Your task to perform on an android device: uninstall "Messenger Lite" Image 0: 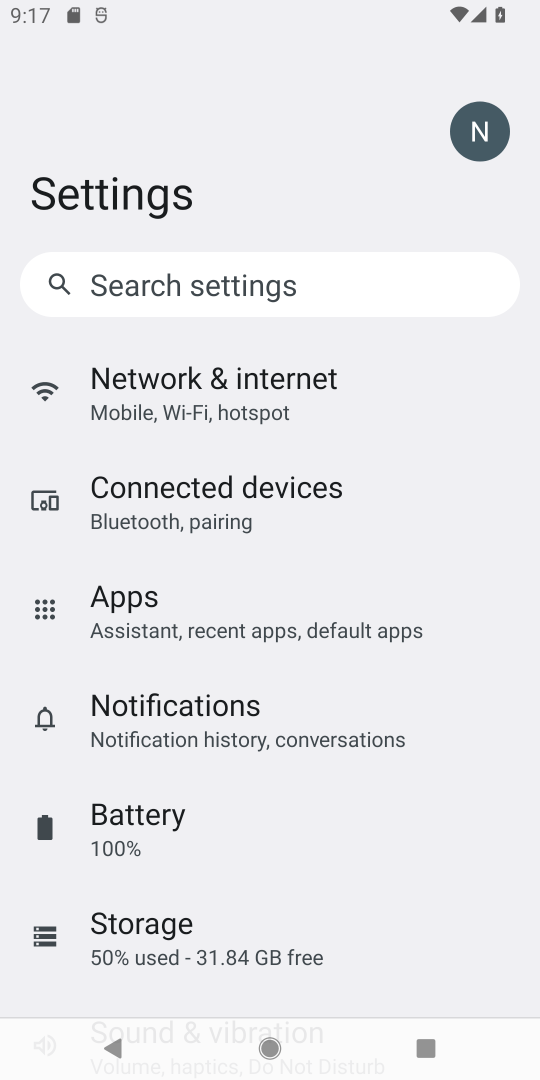
Step 0: press home button
Your task to perform on an android device: uninstall "Messenger Lite" Image 1: 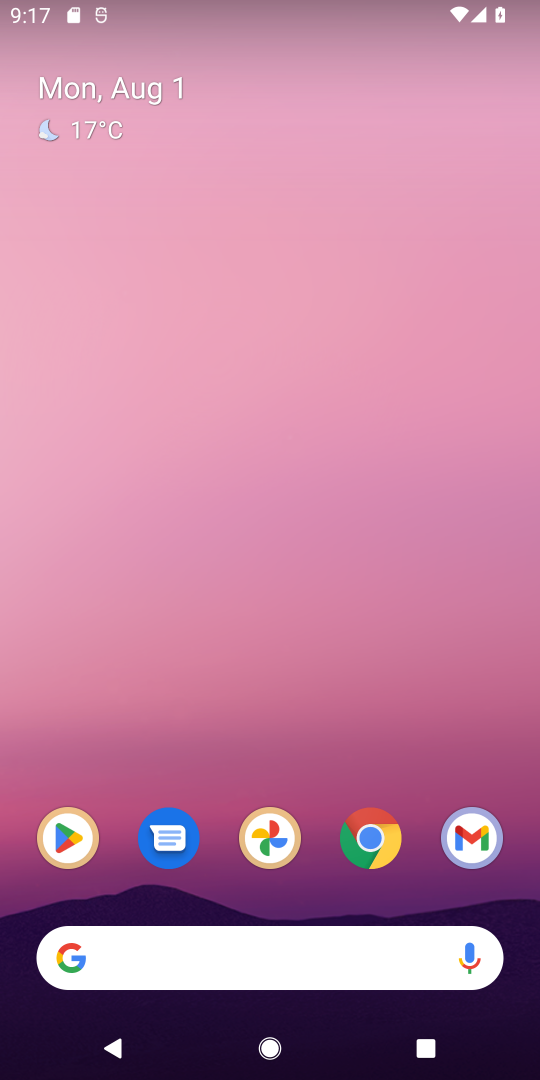
Step 1: click (77, 829)
Your task to perform on an android device: uninstall "Messenger Lite" Image 2: 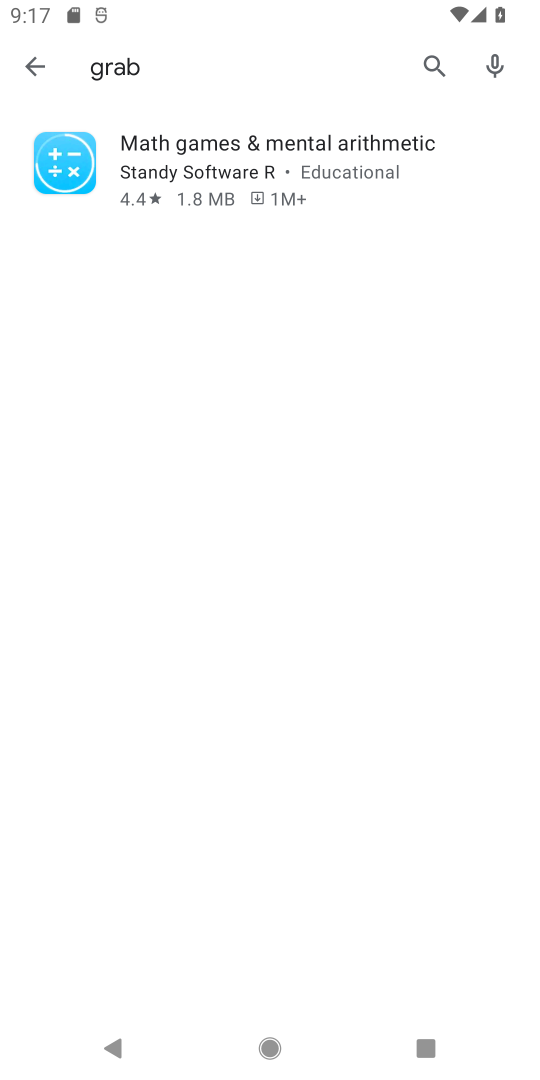
Step 2: click (429, 52)
Your task to perform on an android device: uninstall "Messenger Lite" Image 3: 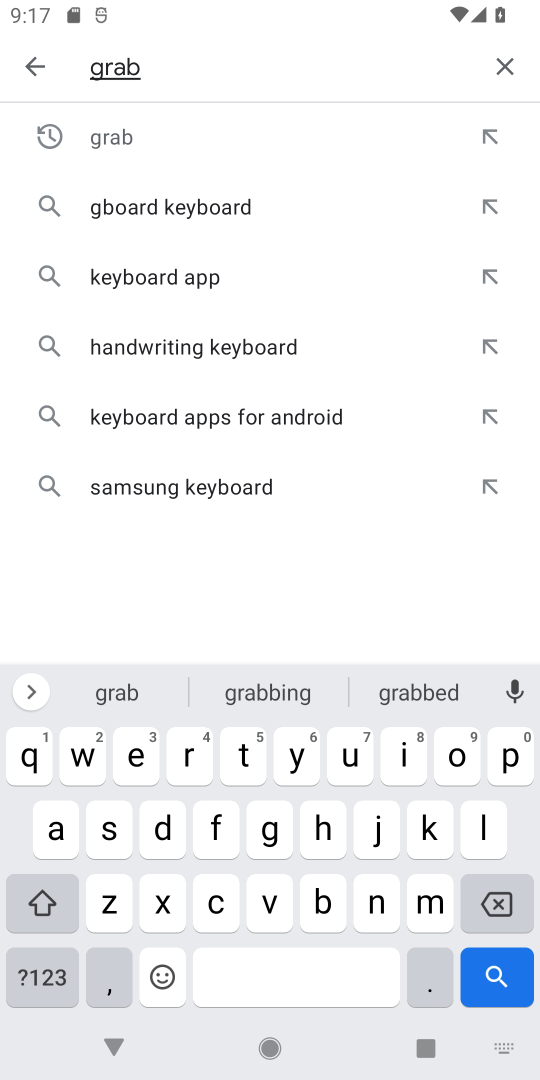
Step 3: click (504, 66)
Your task to perform on an android device: uninstall "Messenger Lite" Image 4: 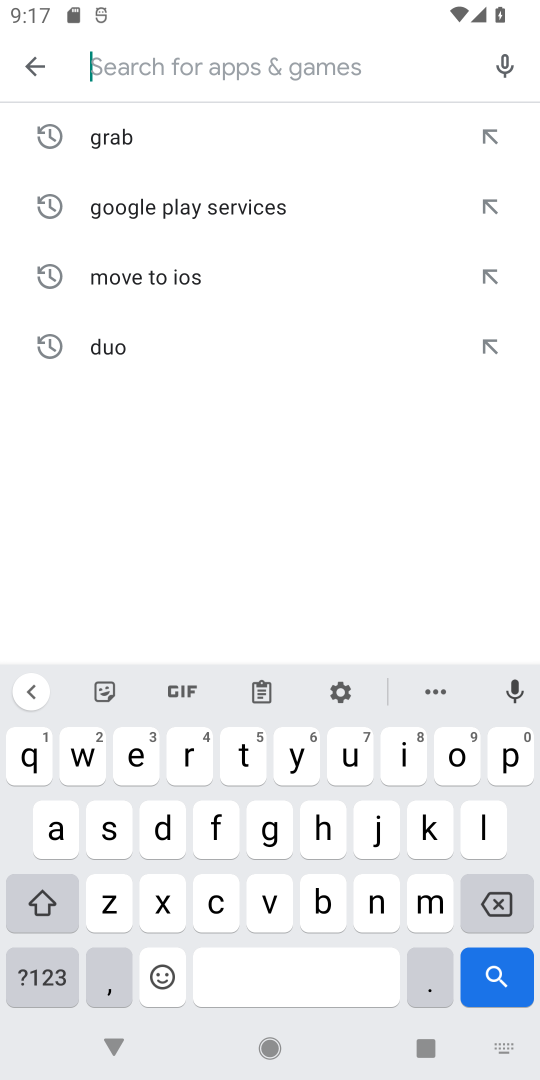
Step 4: type "messenger lite"
Your task to perform on an android device: uninstall "Messenger Lite" Image 5: 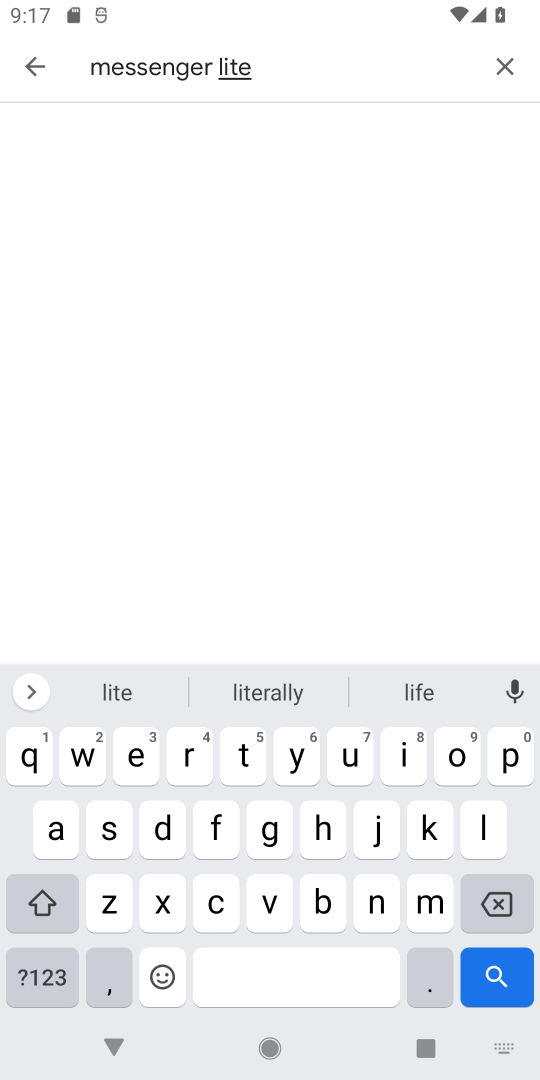
Step 5: click (497, 995)
Your task to perform on an android device: uninstall "Messenger Lite" Image 6: 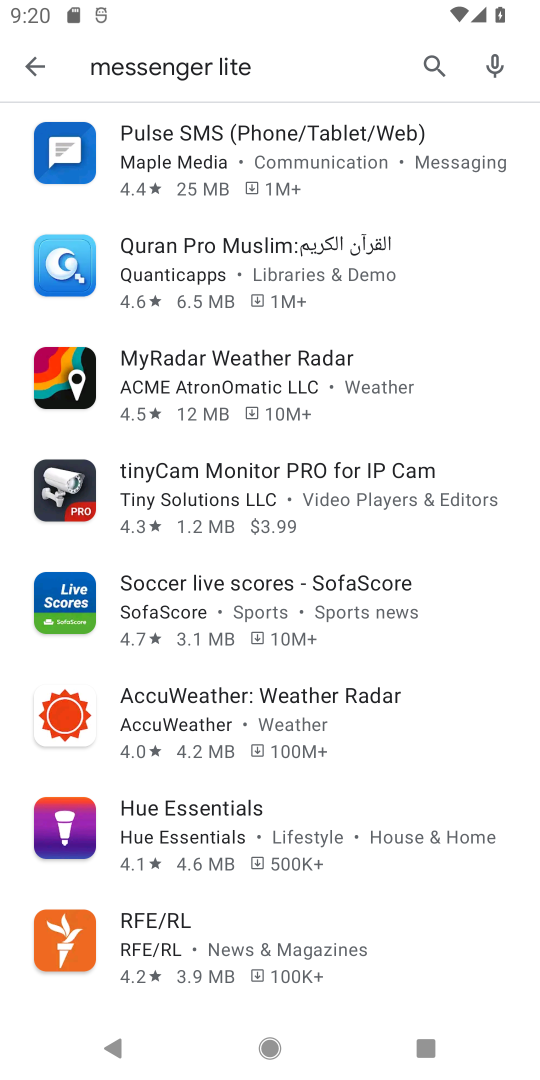
Step 6: task complete